Your task to perform on an android device: Clear all items from cart on costco.com. Add razer blade to the cart on costco.com, then select checkout. Image 0: 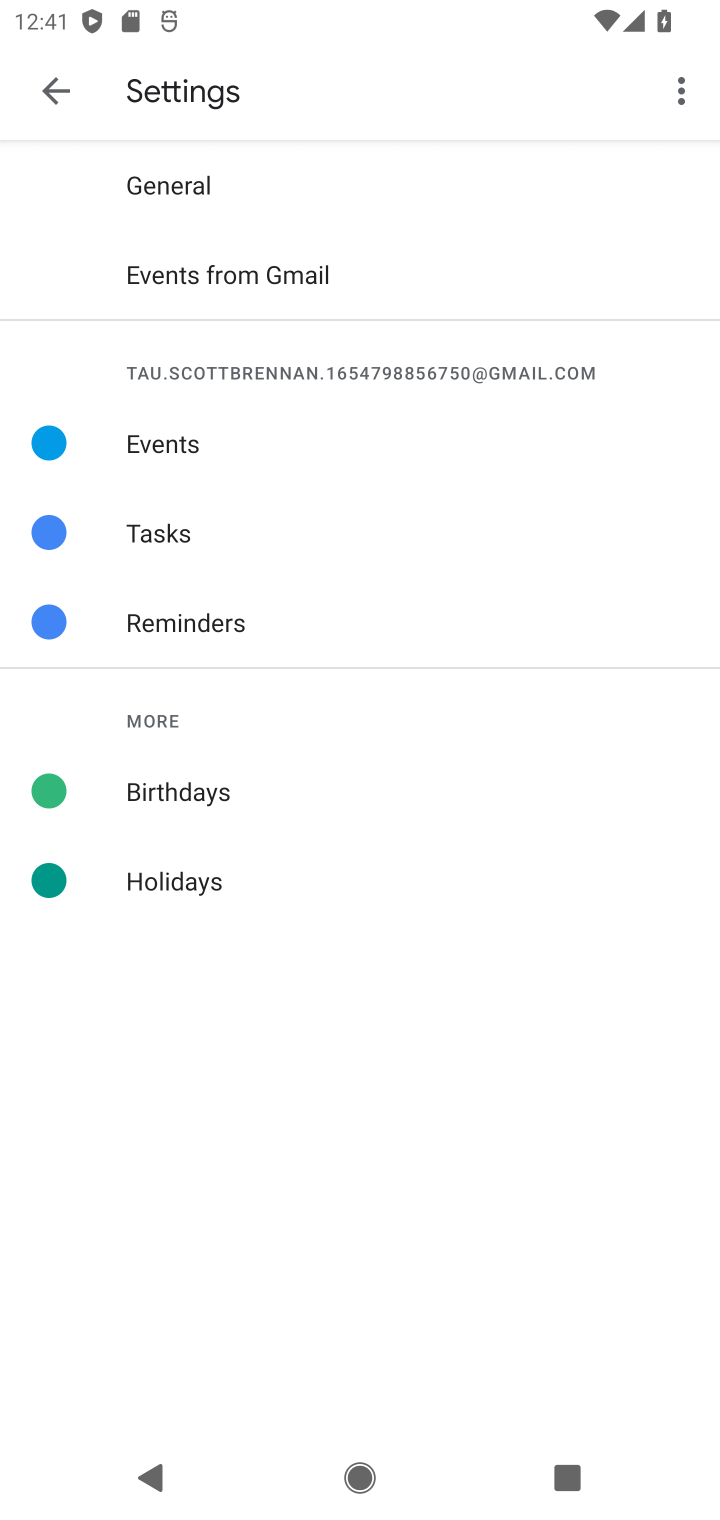
Step 0: press home button
Your task to perform on an android device: Clear all items from cart on costco.com. Add razer blade to the cart on costco.com, then select checkout. Image 1: 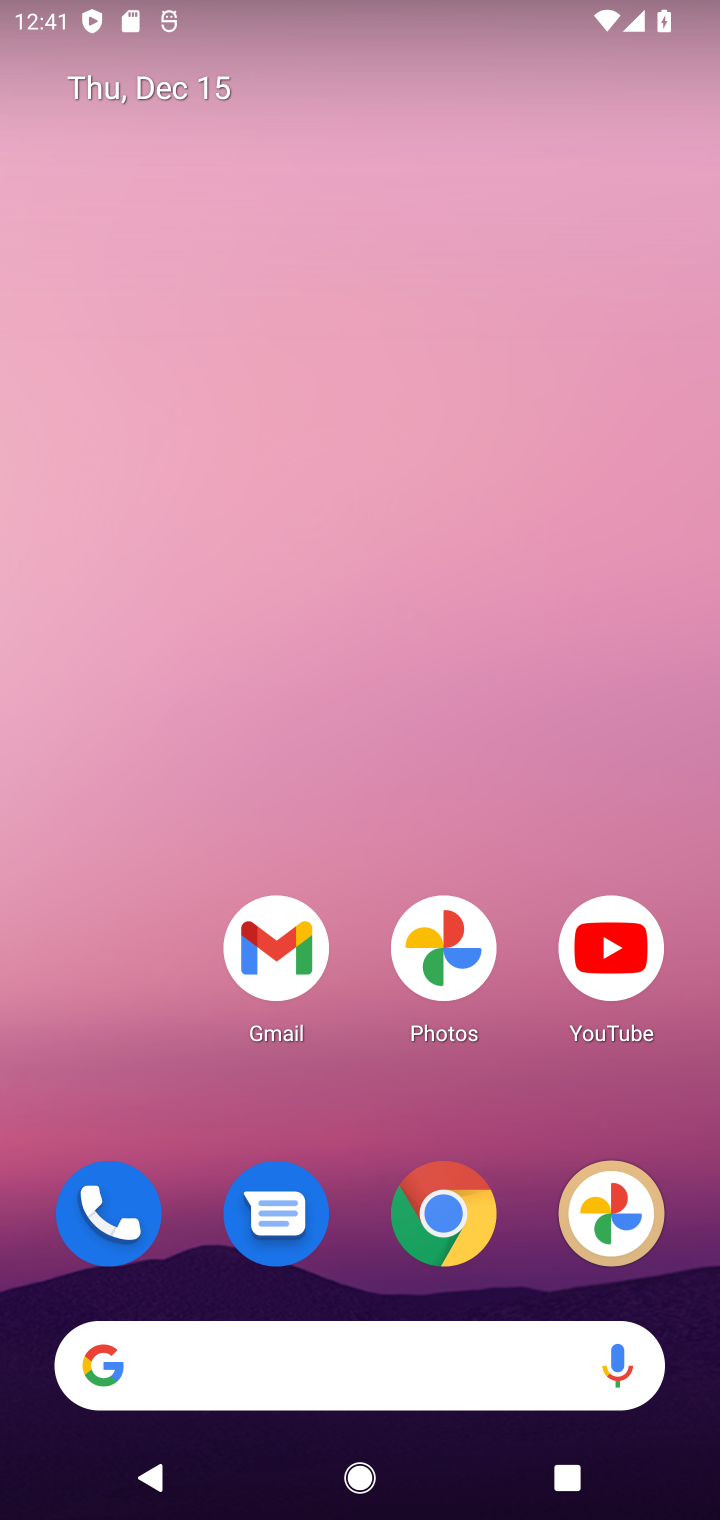
Step 1: click (378, 1350)
Your task to perform on an android device: Clear all items from cart on costco.com. Add razer blade to the cart on costco.com, then select checkout. Image 2: 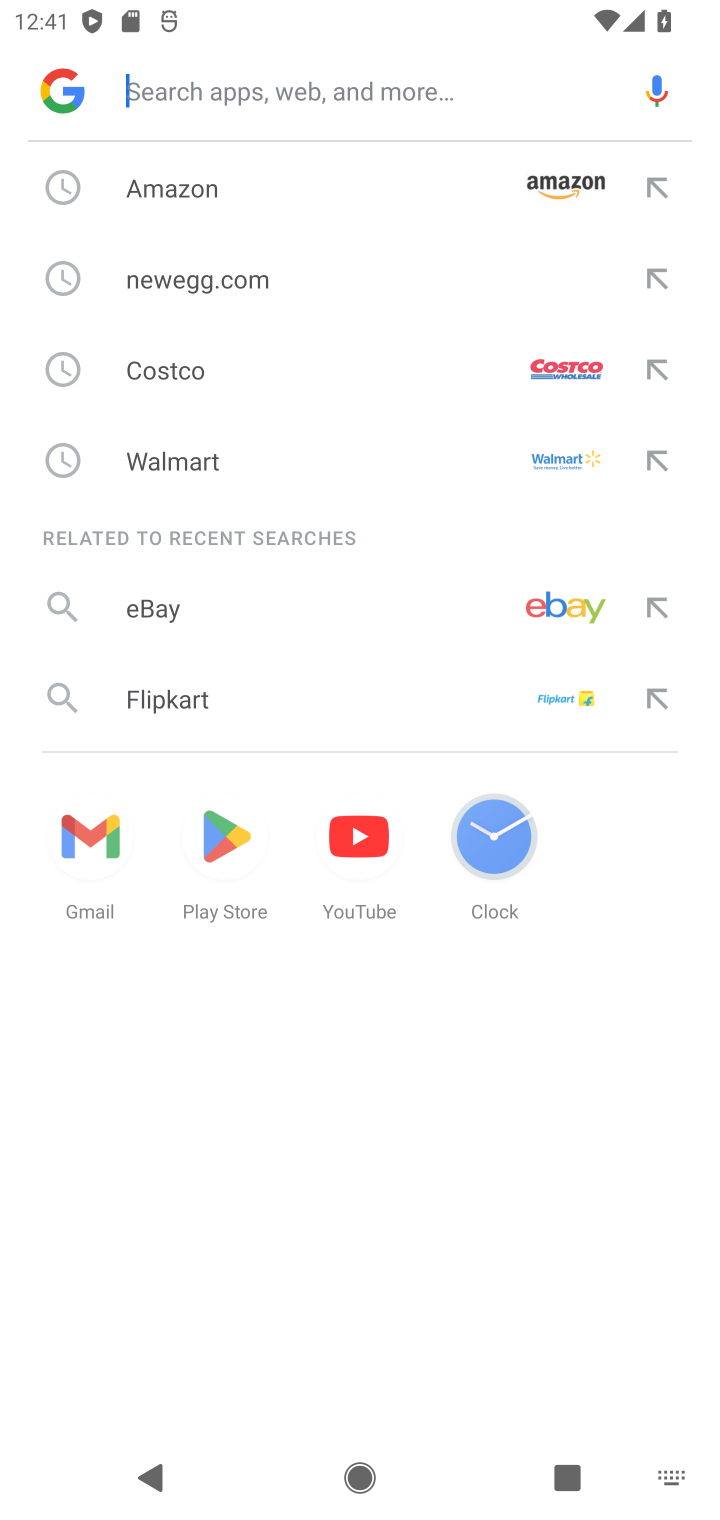
Step 2: type "costco"
Your task to perform on an android device: Clear all items from cart on costco.com. Add razer blade to the cart on costco.com, then select checkout. Image 3: 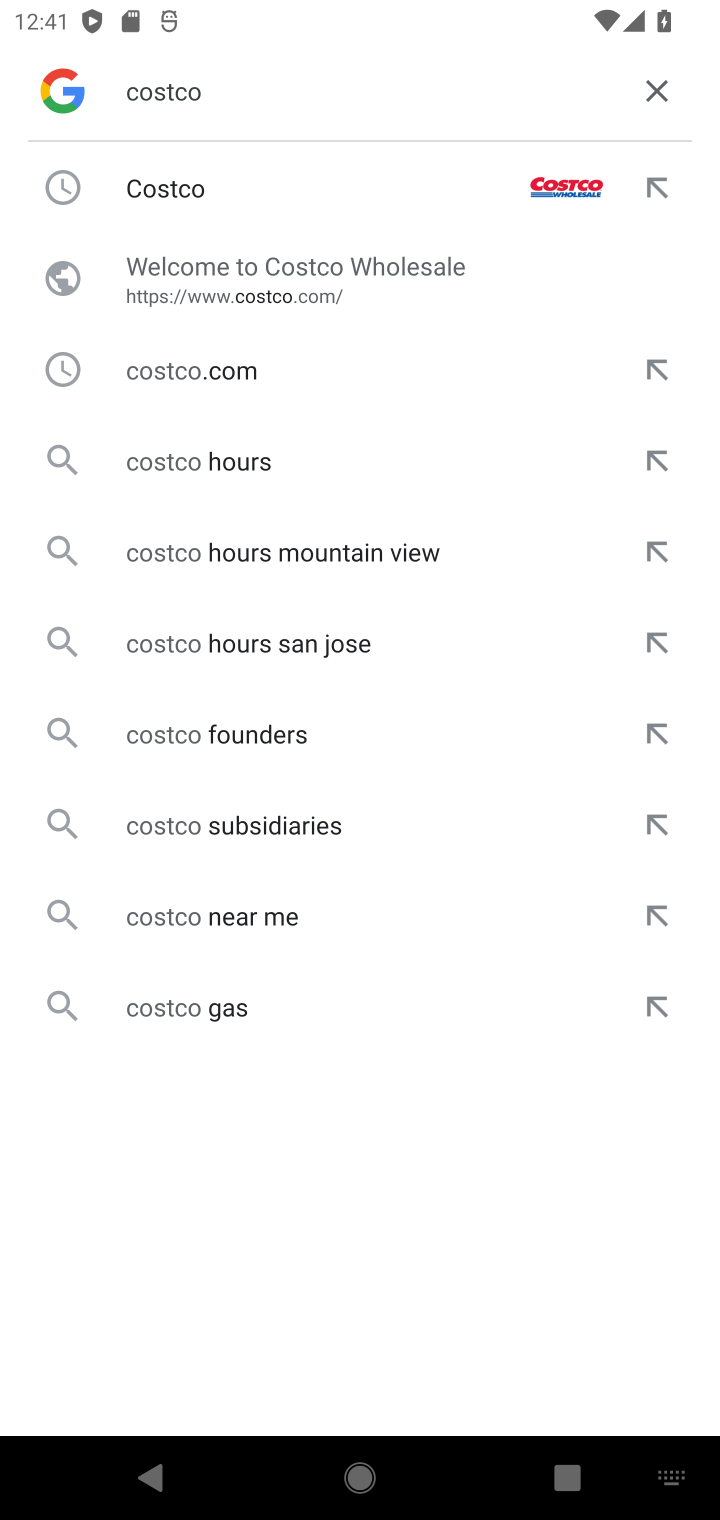
Step 3: click (291, 207)
Your task to perform on an android device: Clear all items from cart on costco.com. Add razer blade to the cart on costco.com, then select checkout. Image 4: 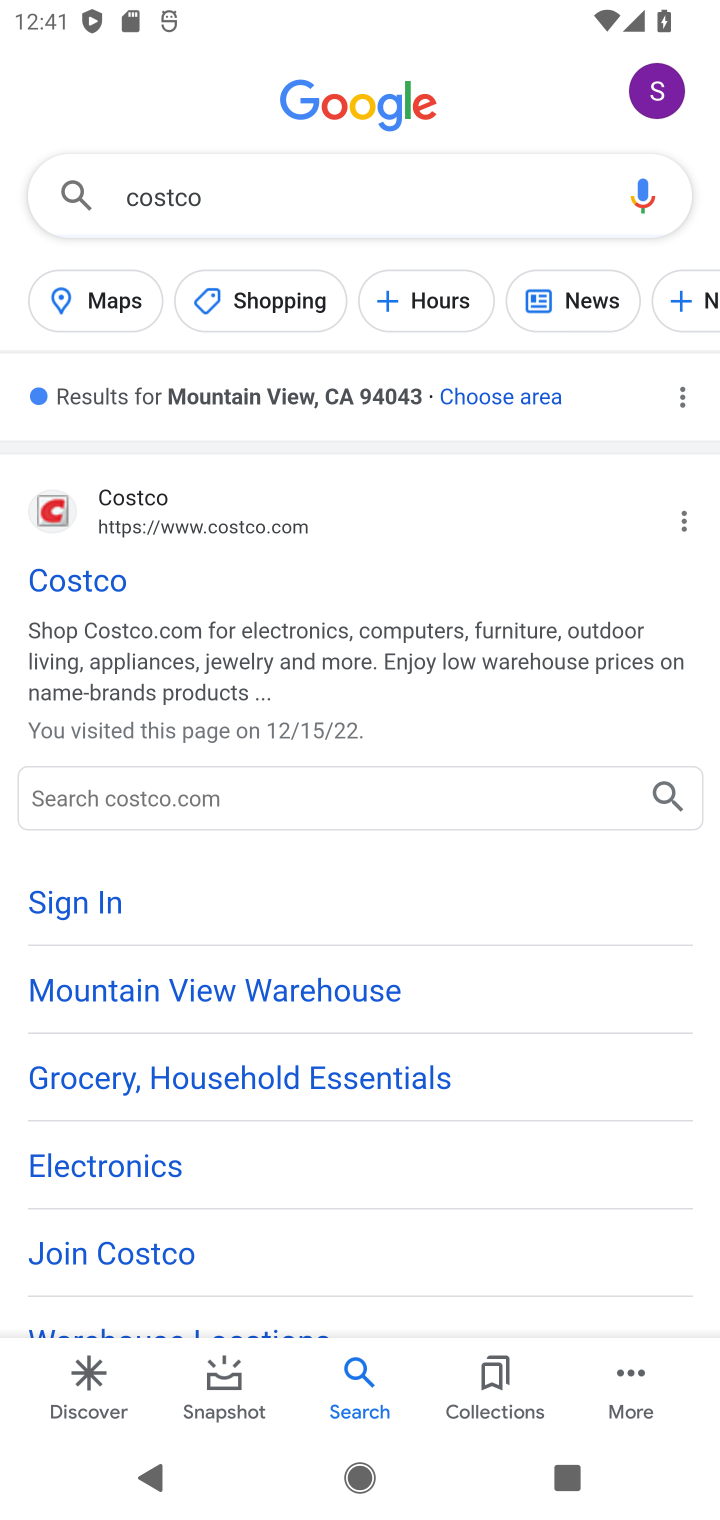
Step 4: click (93, 570)
Your task to perform on an android device: Clear all items from cart on costco.com. Add razer blade to the cart on costco.com, then select checkout. Image 5: 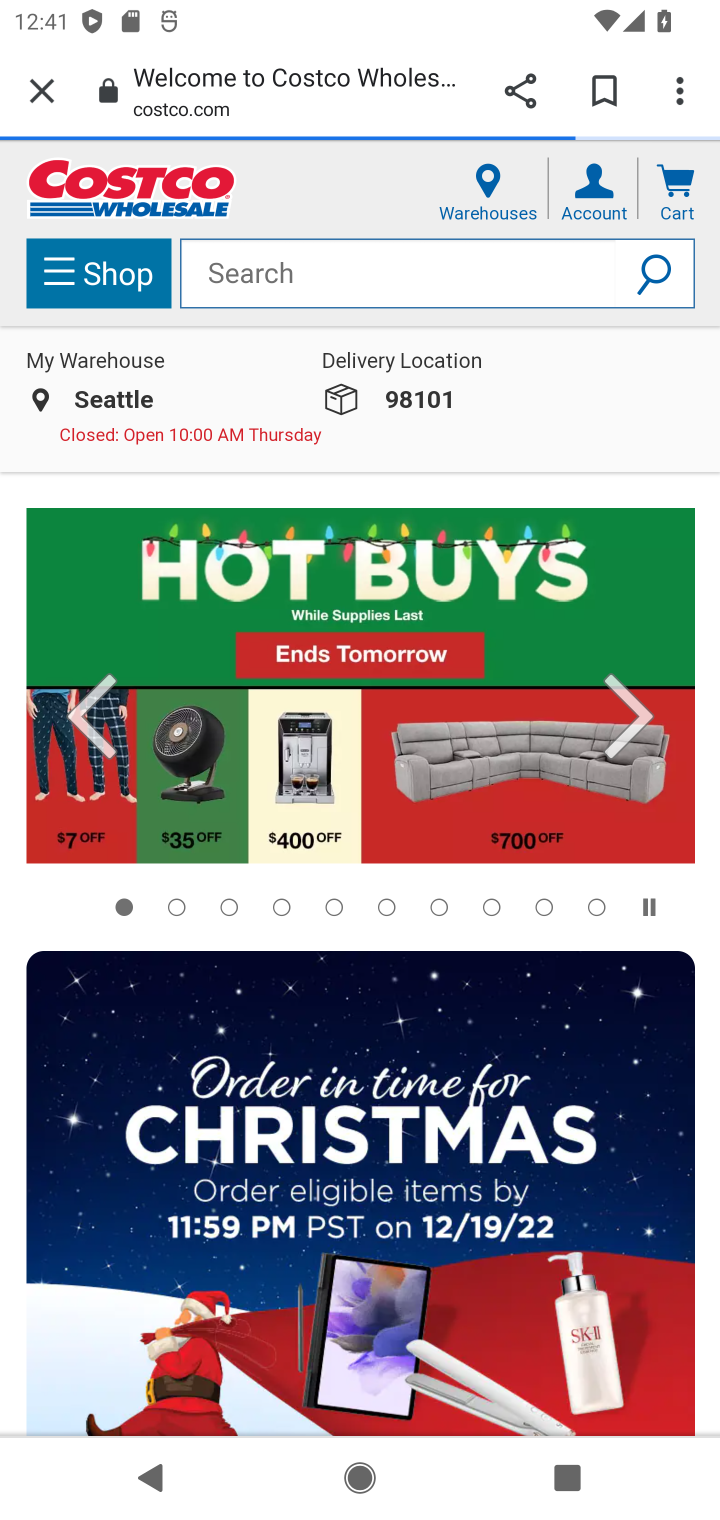
Step 5: click (380, 285)
Your task to perform on an android device: Clear all items from cart on costco.com. Add razer blade to the cart on costco.com, then select checkout. Image 6: 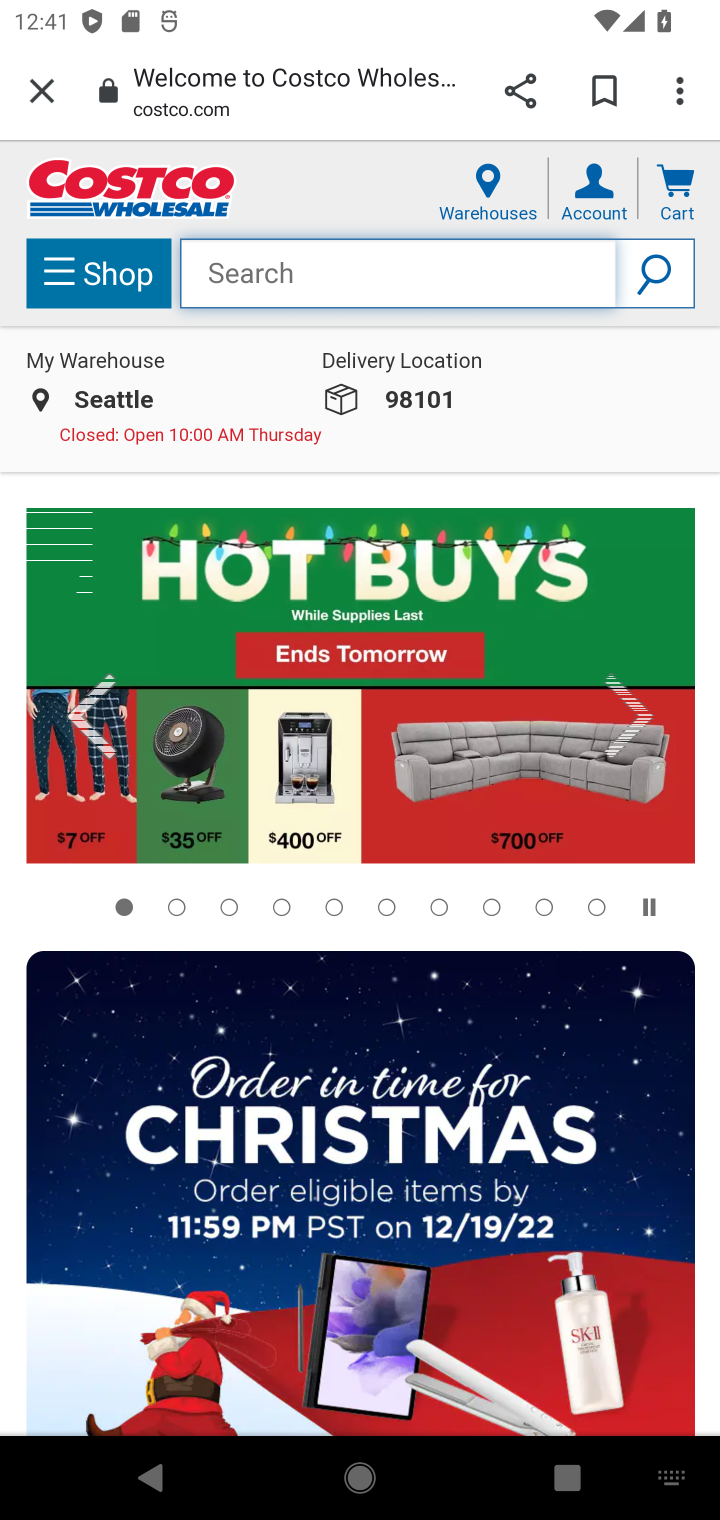
Step 6: type "razer blade"
Your task to perform on an android device: Clear all items from cart on costco.com. Add razer blade to the cart on costco.com, then select checkout. Image 7: 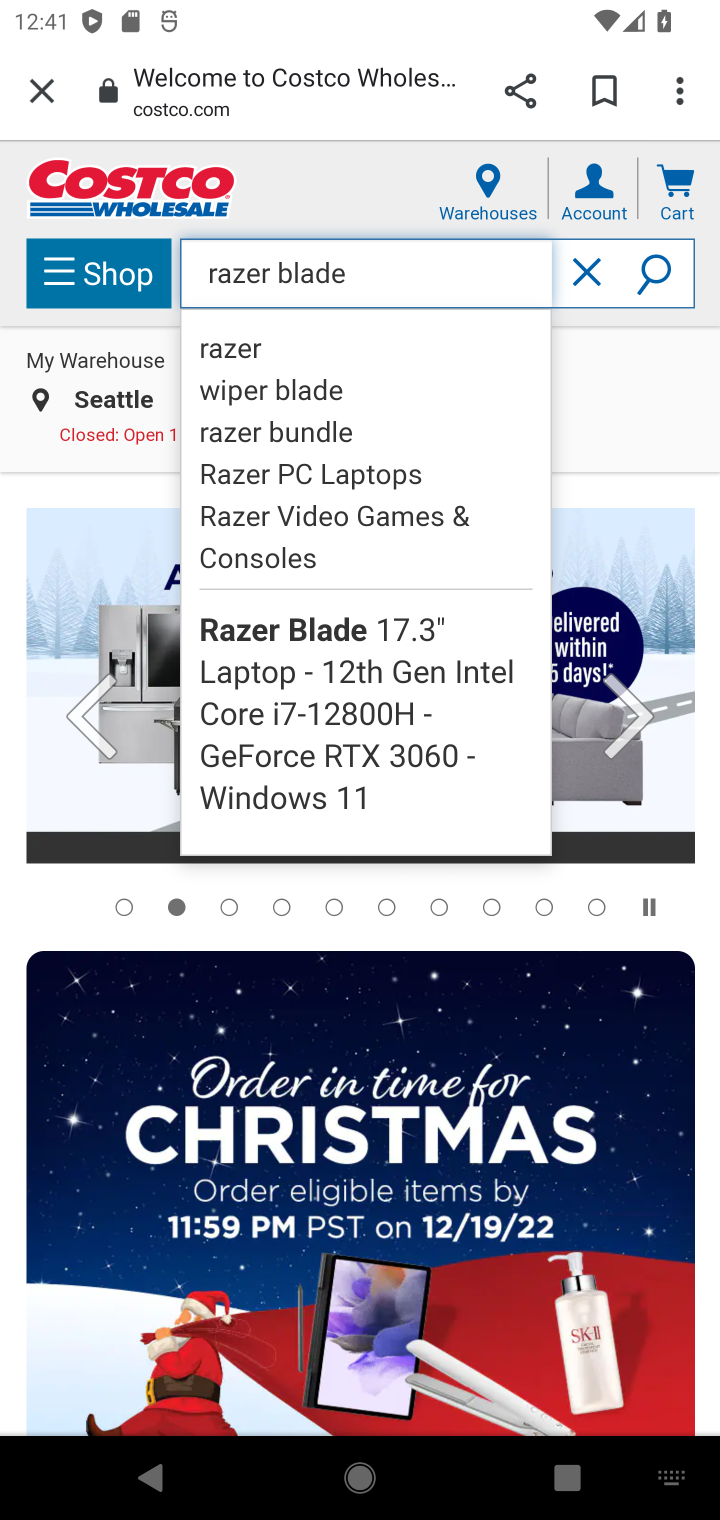
Step 7: click (654, 303)
Your task to perform on an android device: Clear all items from cart on costco.com. Add razer blade to the cart on costco.com, then select checkout. Image 8: 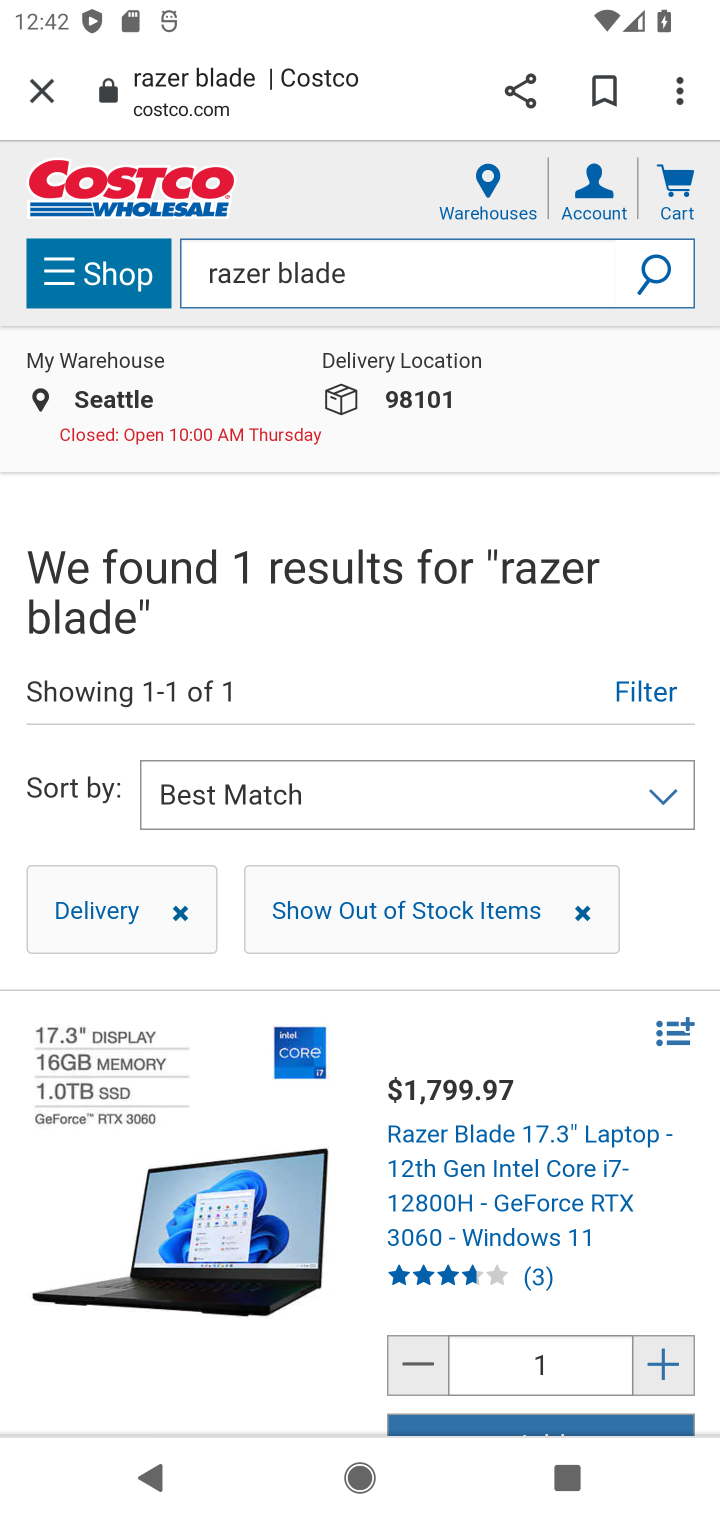
Step 8: click (432, 1418)
Your task to perform on an android device: Clear all items from cart on costco.com. Add razer blade to the cart on costco.com, then select checkout. Image 9: 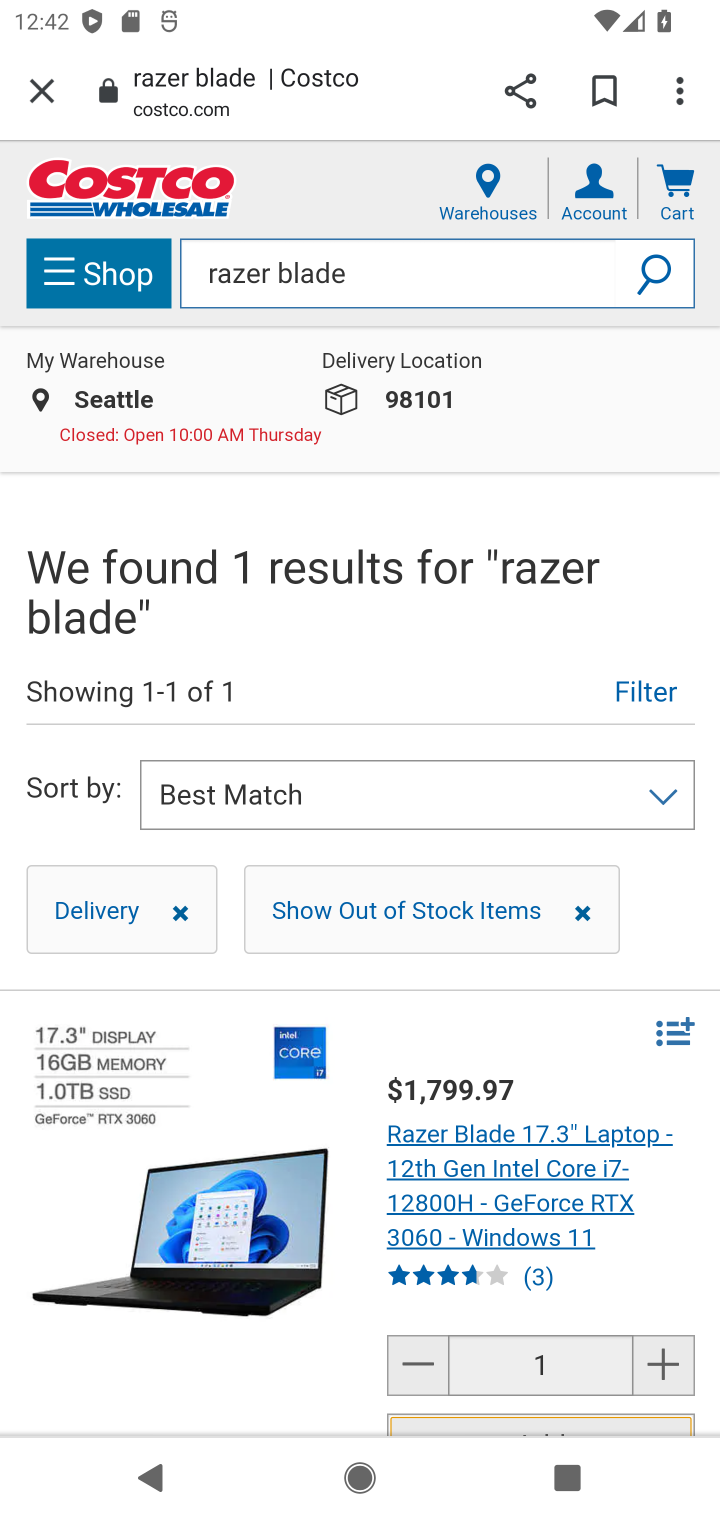
Step 9: task complete